Your task to perform on an android device: What's the weather going to be tomorrow? Image 0: 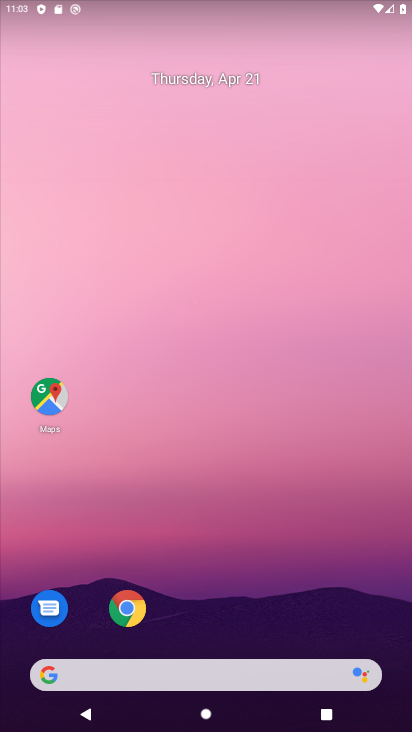
Step 0: drag from (182, 600) to (137, 189)
Your task to perform on an android device: What's the weather going to be tomorrow? Image 1: 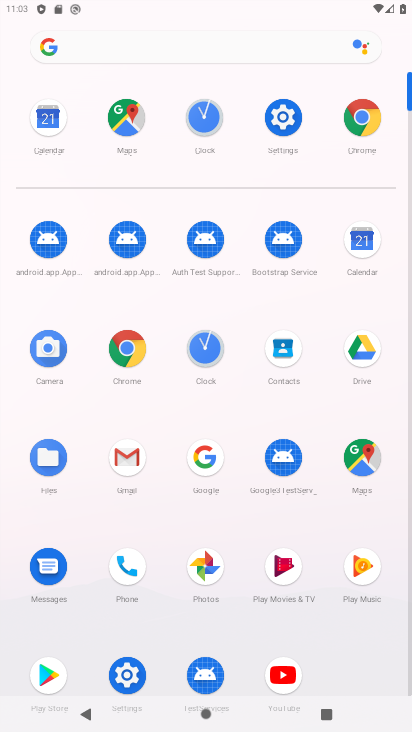
Step 1: click (359, 121)
Your task to perform on an android device: What's the weather going to be tomorrow? Image 2: 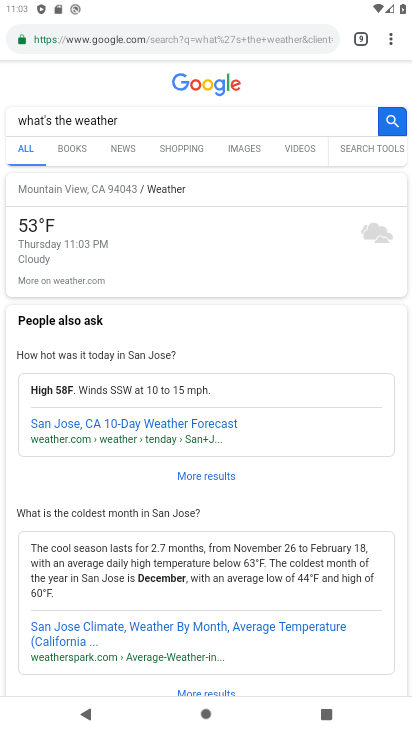
Step 2: click (363, 36)
Your task to perform on an android device: What's the weather going to be tomorrow? Image 3: 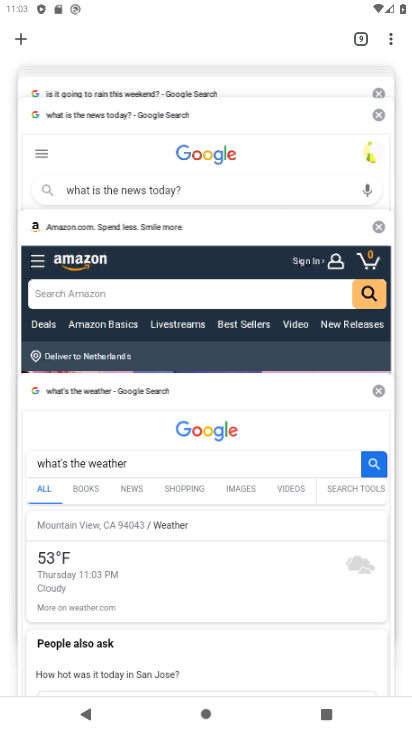
Step 3: click (23, 34)
Your task to perform on an android device: What's the weather going to be tomorrow? Image 4: 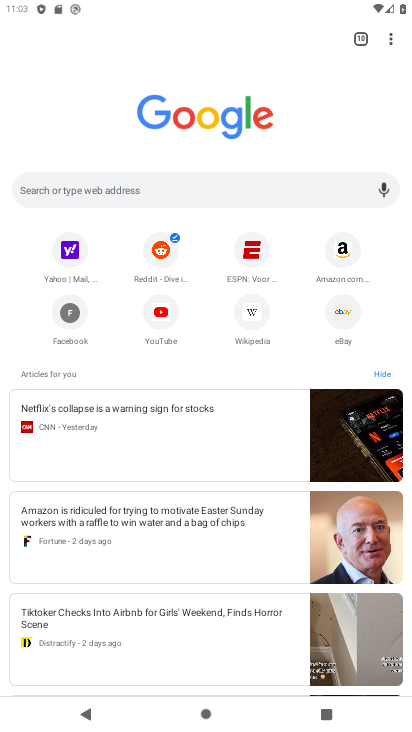
Step 4: click (108, 188)
Your task to perform on an android device: What's the weather going to be tomorrow? Image 5: 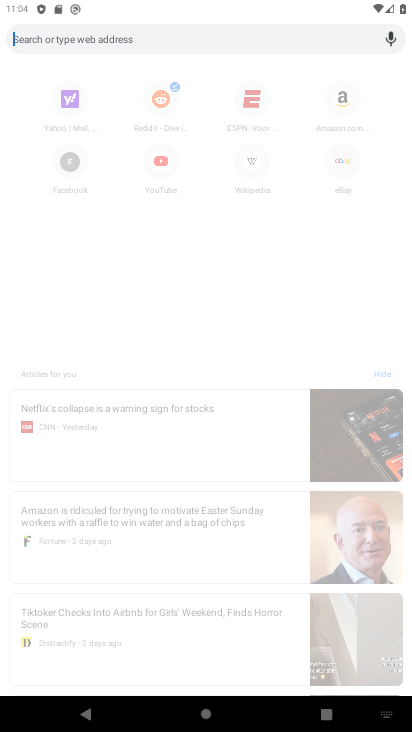
Step 5: type "what's the weather going to be tomorrow"
Your task to perform on an android device: What's the weather going to be tomorrow? Image 6: 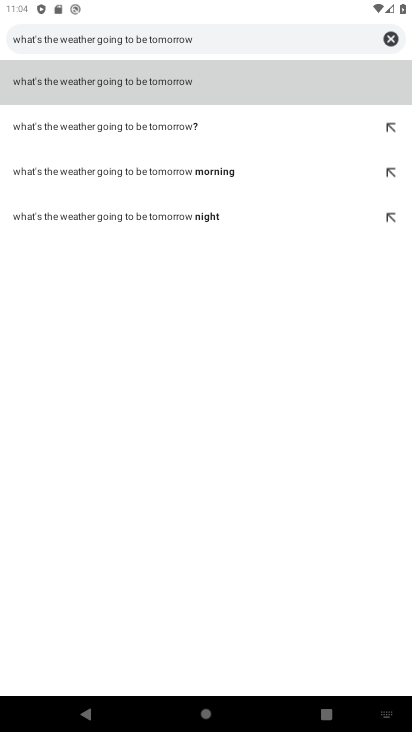
Step 6: click (140, 122)
Your task to perform on an android device: What's the weather going to be tomorrow? Image 7: 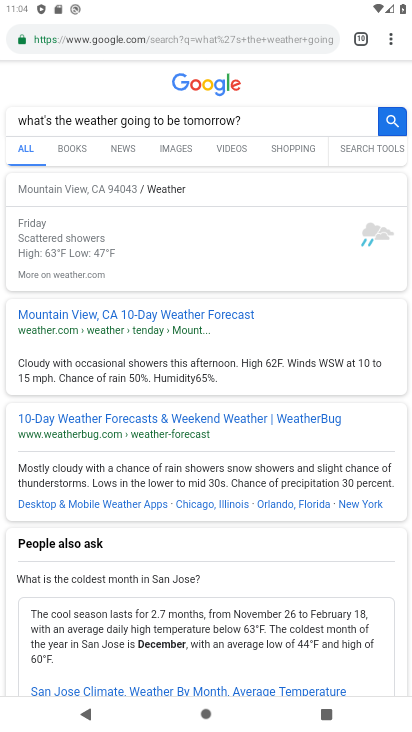
Step 7: task complete